Your task to perform on an android device: open device folders in google photos Image 0: 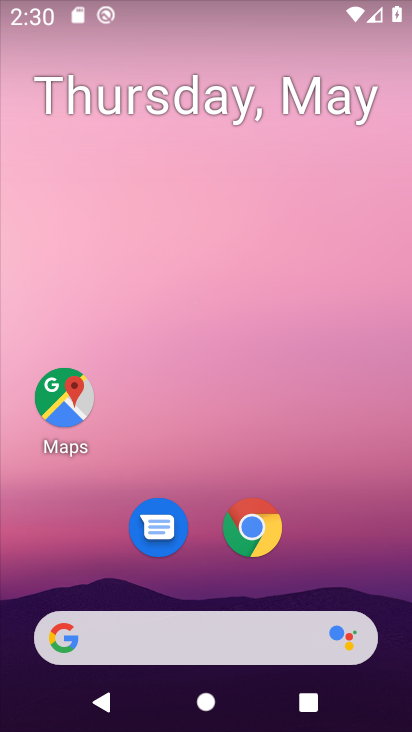
Step 0: drag from (374, 560) to (380, 67)
Your task to perform on an android device: open device folders in google photos Image 1: 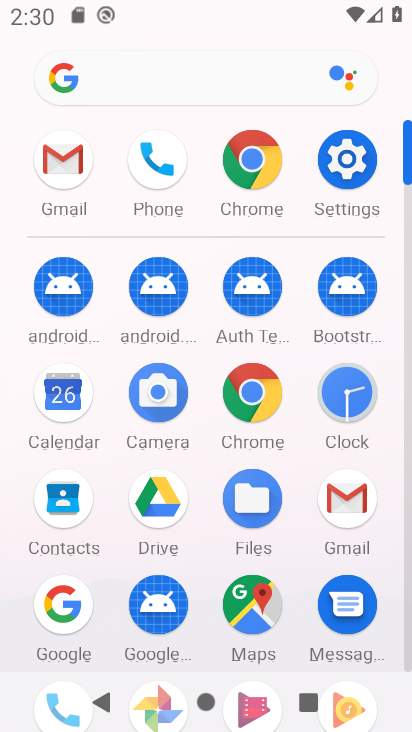
Step 1: click (409, 662)
Your task to perform on an android device: open device folders in google photos Image 2: 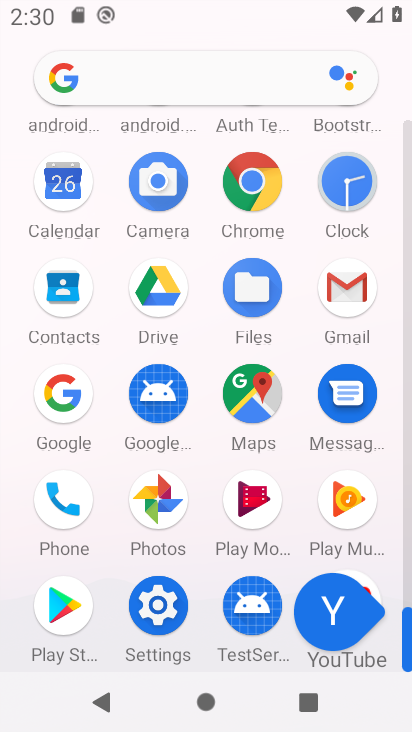
Step 2: click (409, 662)
Your task to perform on an android device: open device folders in google photos Image 3: 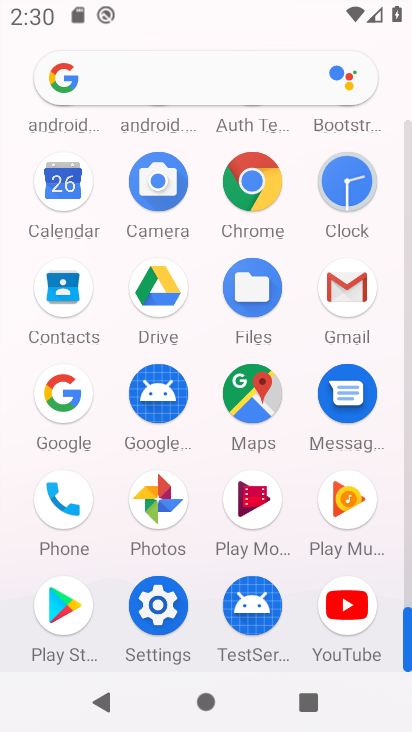
Step 3: click (162, 475)
Your task to perform on an android device: open device folders in google photos Image 4: 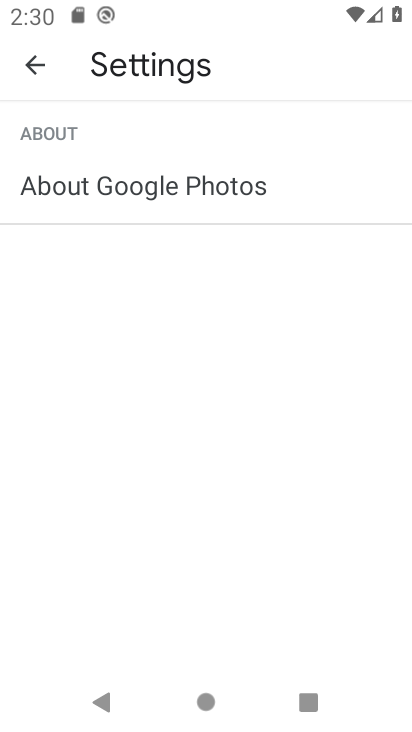
Step 4: click (31, 68)
Your task to perform on an android device: open device folders in google photos Image 5: 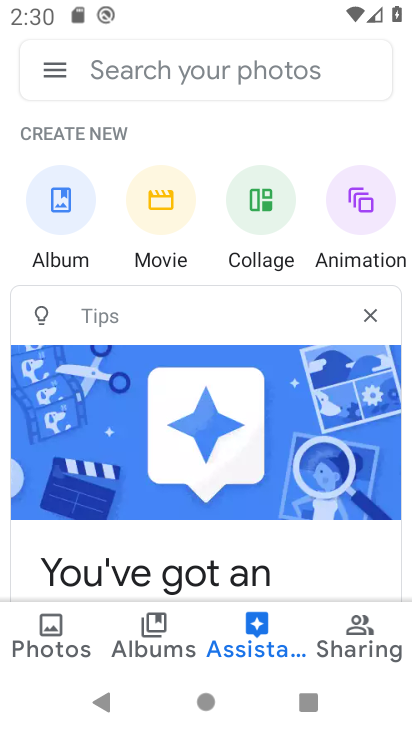
Step 5: click (54, 84)
Your task to perform on an android device: open device folders in google photos Image 6: 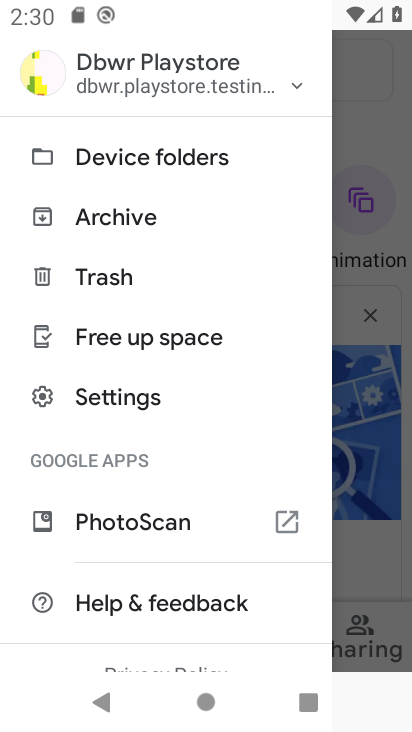
Step 6: click (174, 145)
Your task to perform on an android device: open device folders in google photos Image 7: 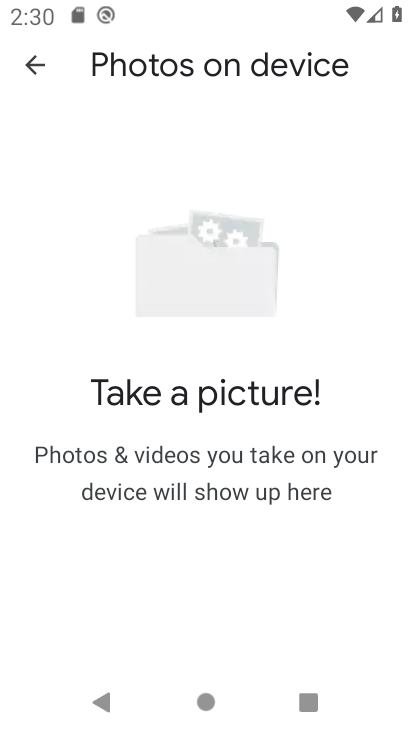
Step 7: task complete